Your task to perform on an android device: Open maps Image 0: 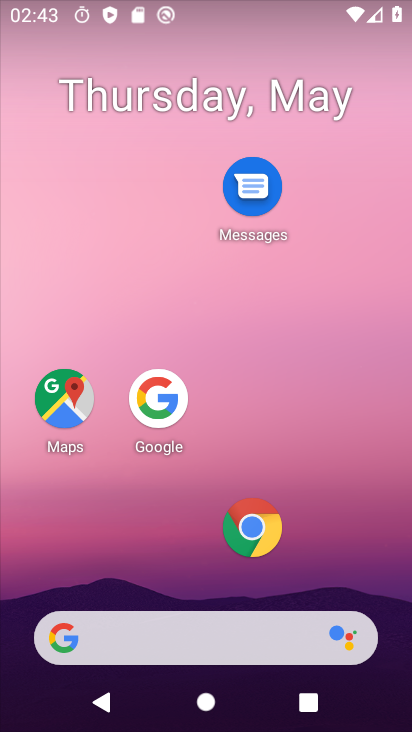
Step 0: drag from (198, 572) to (203, 302)
Your task to perform on an android device: Open maps Image 1: 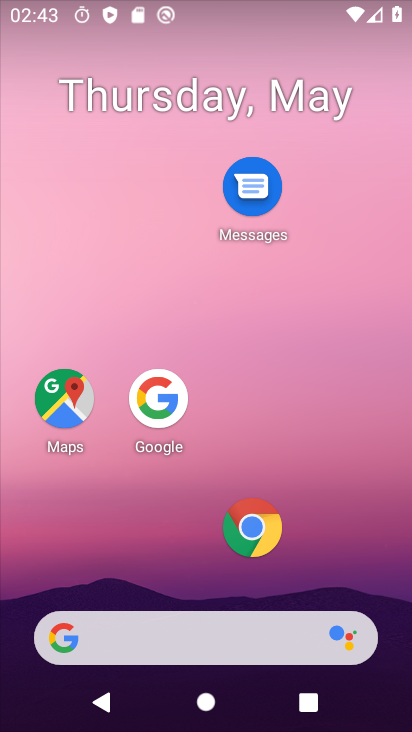
Step 1: drag from (212, 544) to (244, 294)
Your task to perform on an android device: Open maps Image 2: 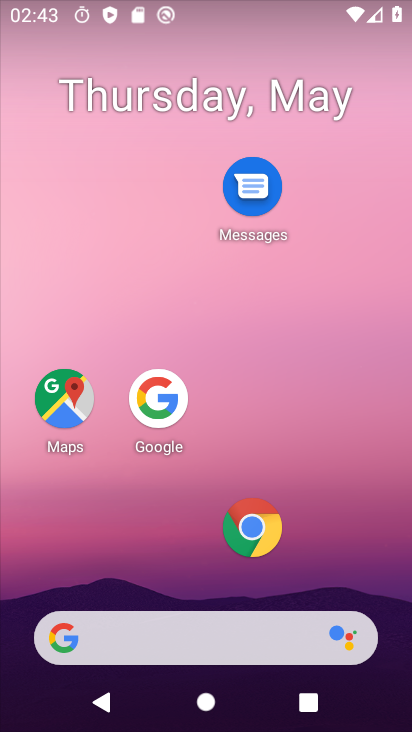
Step 2: drag from (194, 578) to (211, 97)
Your task to perform on an android device: Open maps Image 3: 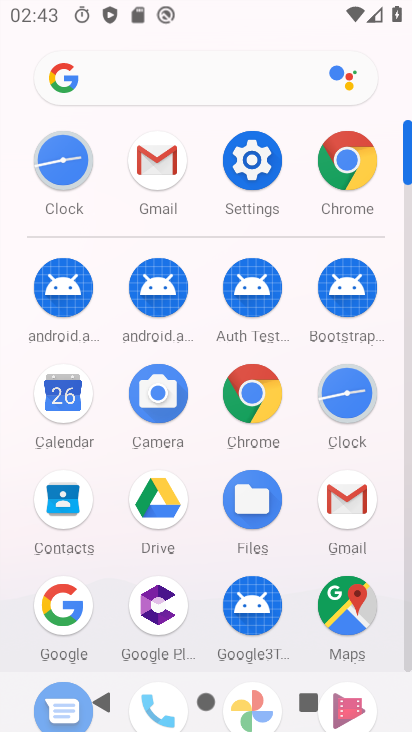
Step 3: click (254, 155)
Your task to perform on an android device: Open maps Image 4: 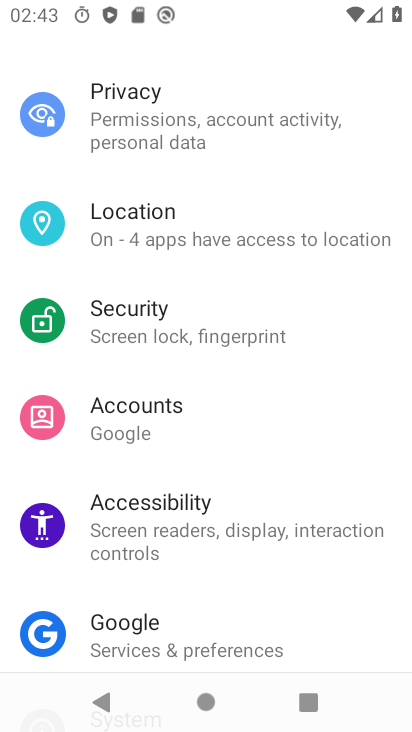
Step 4: press home button
Your task to perform on an android device: Open maps Image 5: 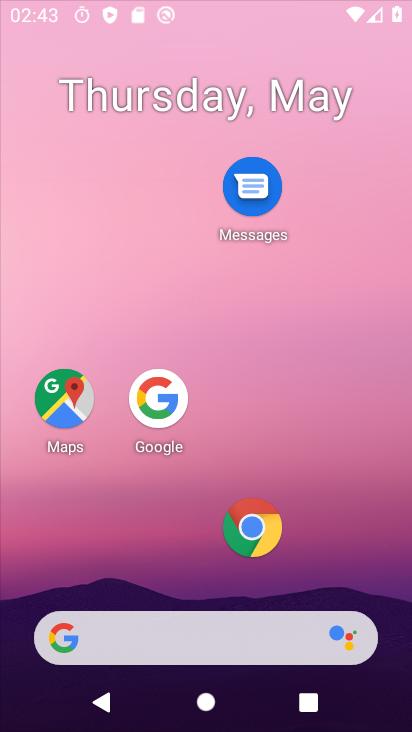
Step 5: drag from (188, 606) to (239, 137)
Your task to perform on an android device: Open maps Image 6: 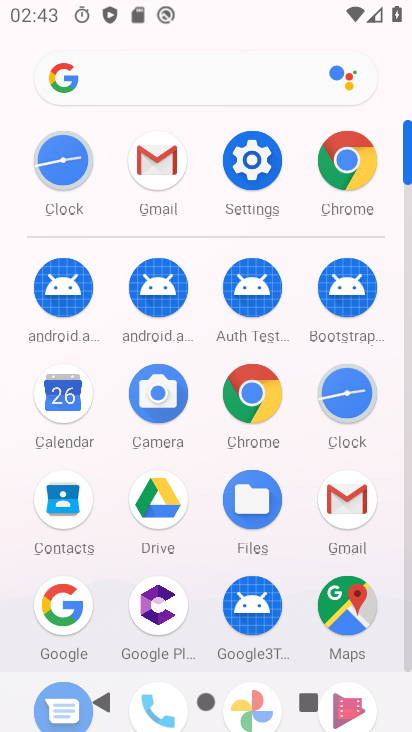
Step 6: click (366, 605)
Your task to perform on an android device: Open maps Image 7: 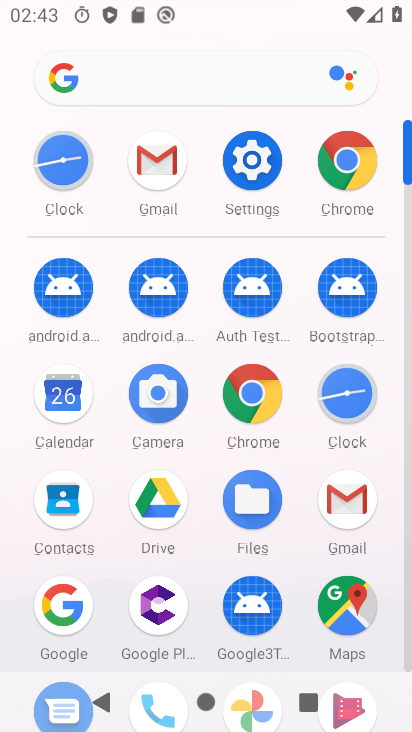
Step 7: click (366, 605)
Your task to perform on an android device: Open maps Image 8: 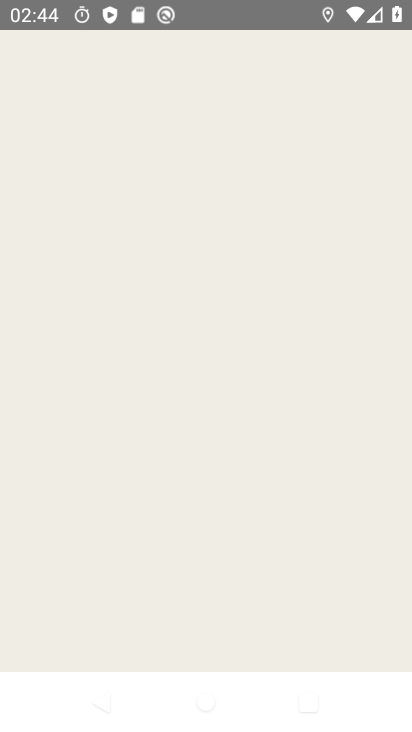
Step 8: task complete